Your task to perform on an android device: Open Maps and search for coffee Image 0: 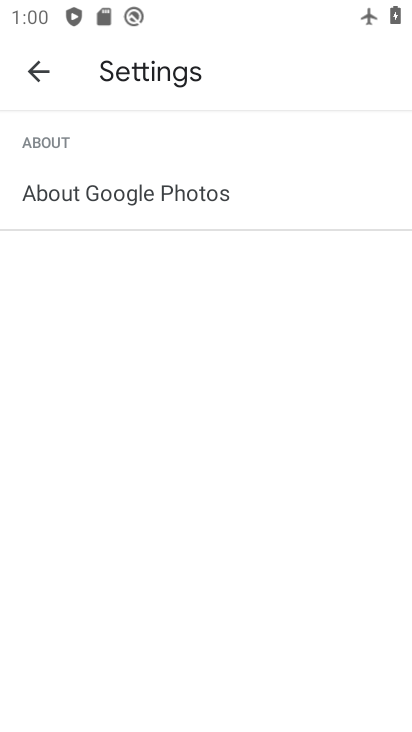
Step 0: press home button
Your task to perform on an android device: Open Maps and search for coffee Image 1: 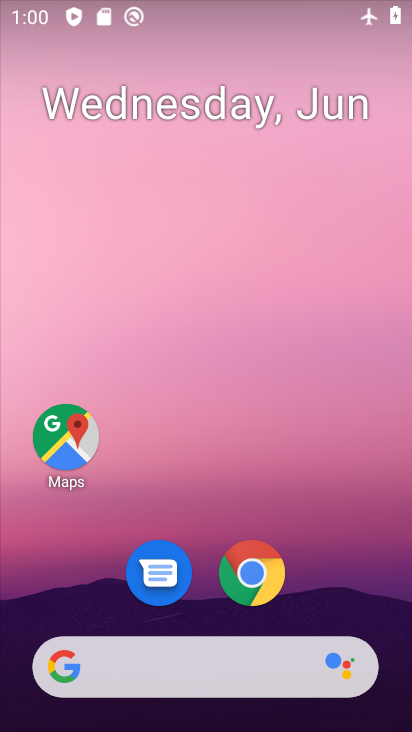
Step 1: drag from (373, 546) to (373, 179)
Your task to perform on an android device: Open Maps and search for coffee Image 2: 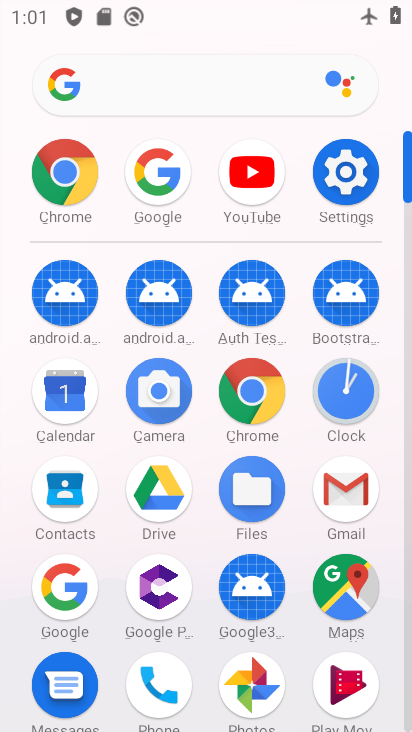
Step 2: click (337, 576)
Your task to perform on an android device: Open Maps and search for coffee Image 3: 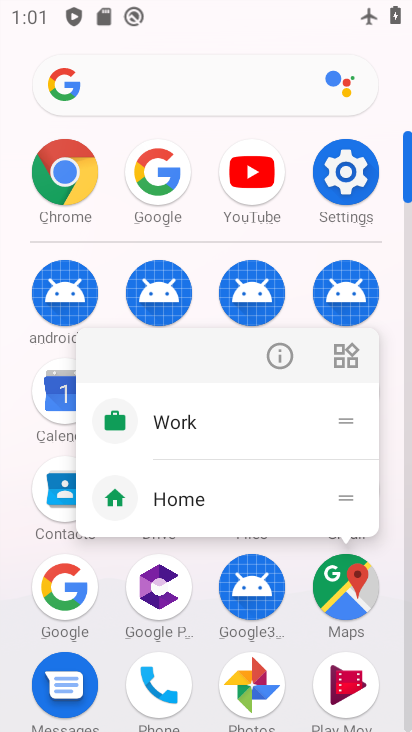
Step 3: click (337, 573)
Your task to perform on an android device: Open Maps and search for coffee Image 4: 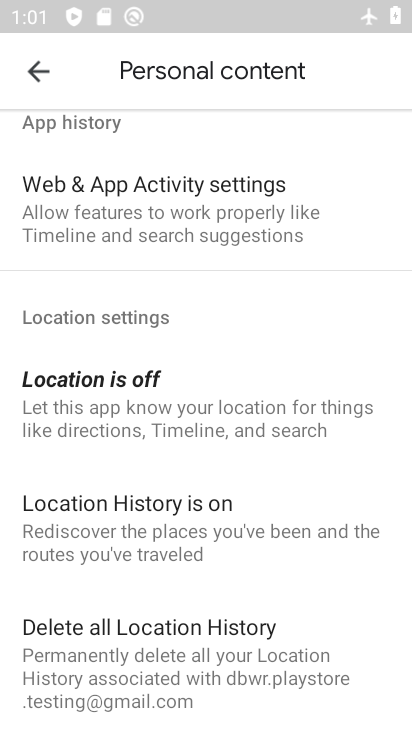
Step 4: click (18, 48)
Your task to perform on an android device: Open Maps and search for coffee Image 5: 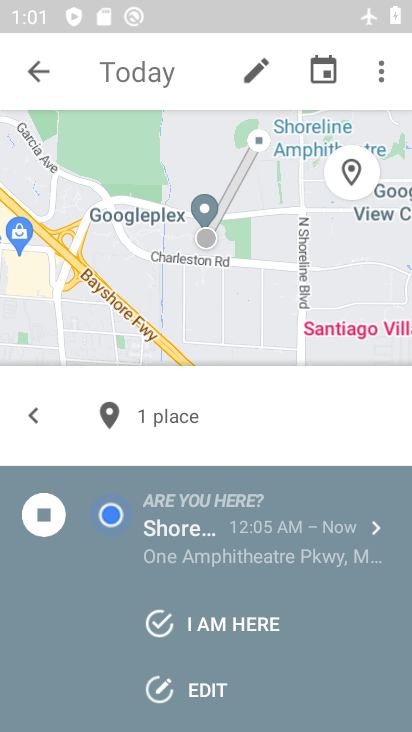
Step 5: click (35, 73)
Your task to perform on an android device: Open Maps and search for coffee Image 6: 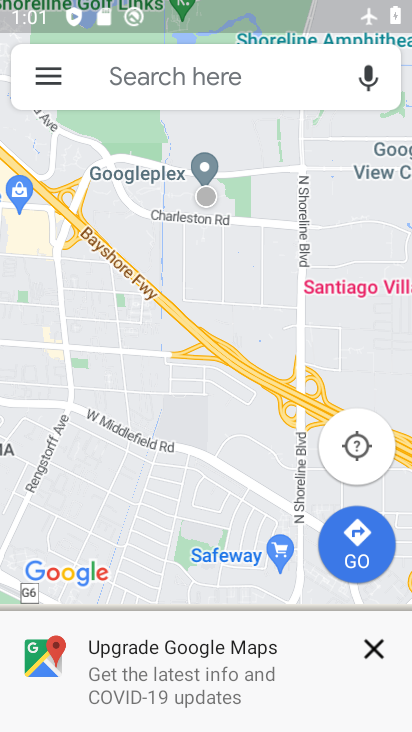
Step 6: click (134, 60)
Your task to perform on an android device: Open Maps and search for coffee Image 7: 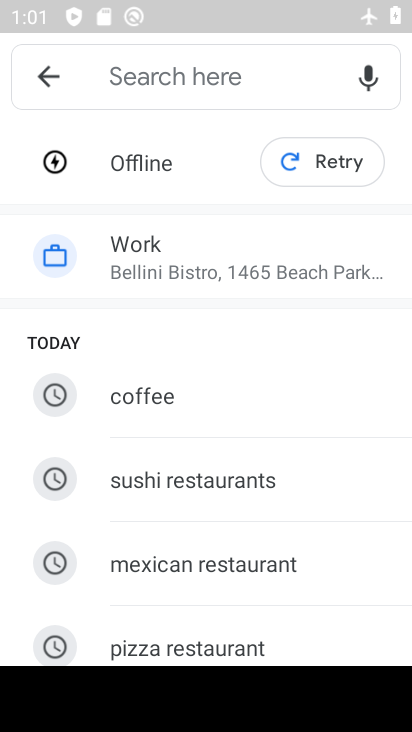
Step 7: type "coffee"
Your task to perform on an android device: Open Maps and search for coffee Image 8: 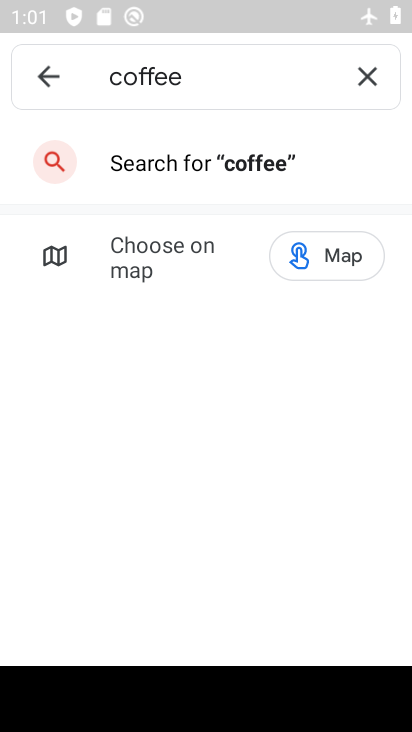
Step 8: click (120, 166)
Your task to perform on an android device: Open Maps and search for coffee Image 9: 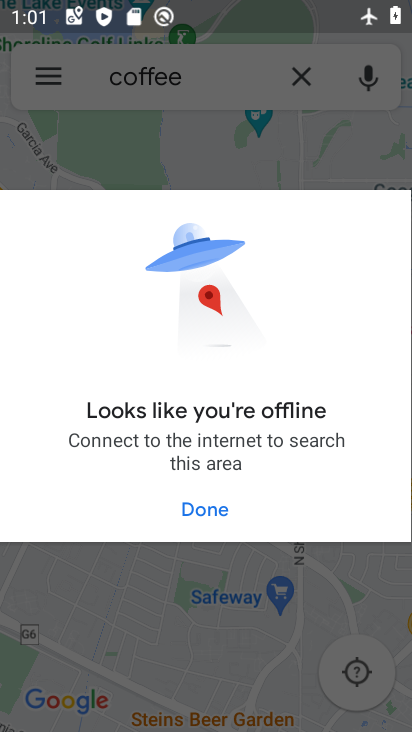
Step 9: task complete